Your task to perform on an android device: Go to calendar. Show me events next week Image 0: 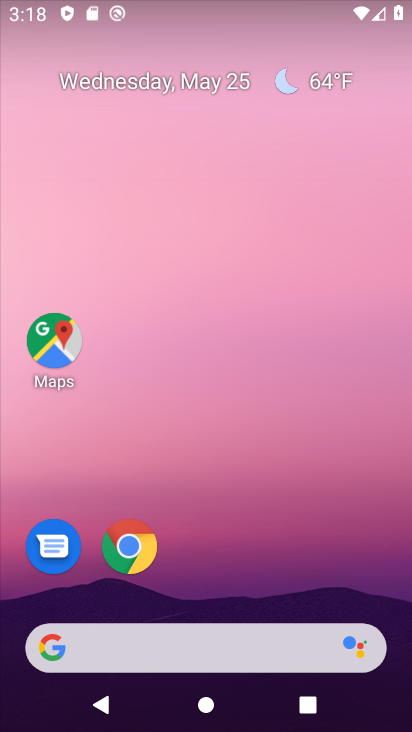
Step 0: drag from (224, 564) to (79, 26)
Your task to perform on an android device: Go to calendar. Show me events next week Image 1: 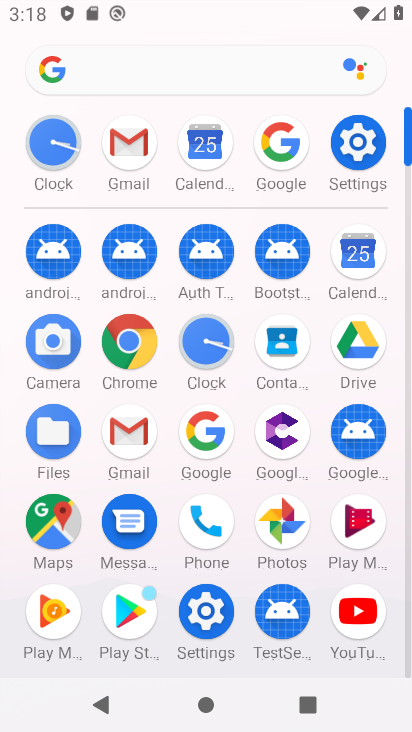
Step 1: click (358, 256)
Your task to perform on an android device: Go to calendar. Show me events next week Image 2: 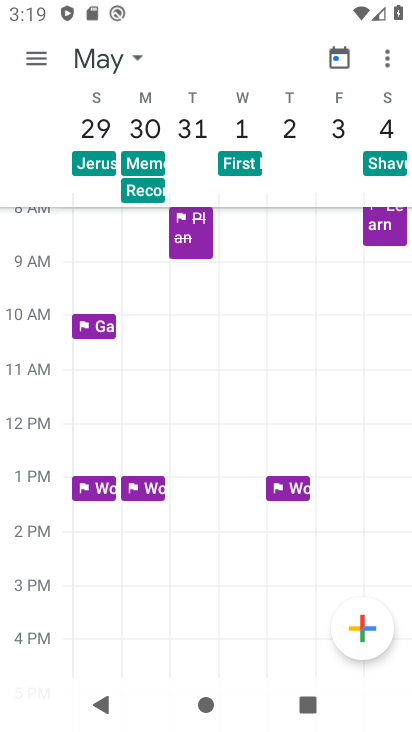
Step 2: drag from (88, 119) to (382, 111)
Your task to perform on an android device: Go to calendar. Show me events next week Image 3: 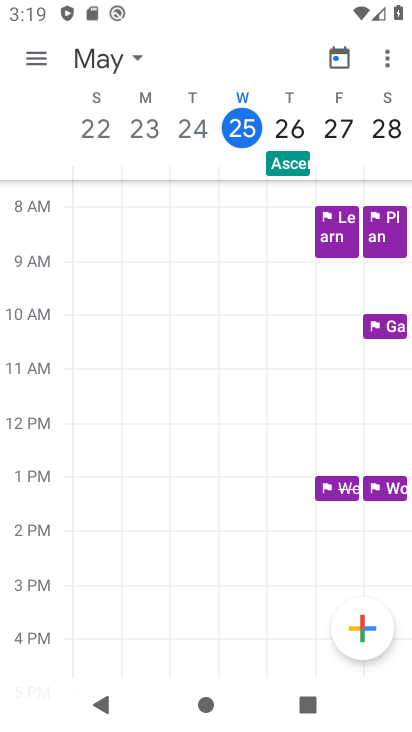
Step 3: click (47, 67)
Your task to perform on an android device: Go to calendar. Show me events next week Image 4: 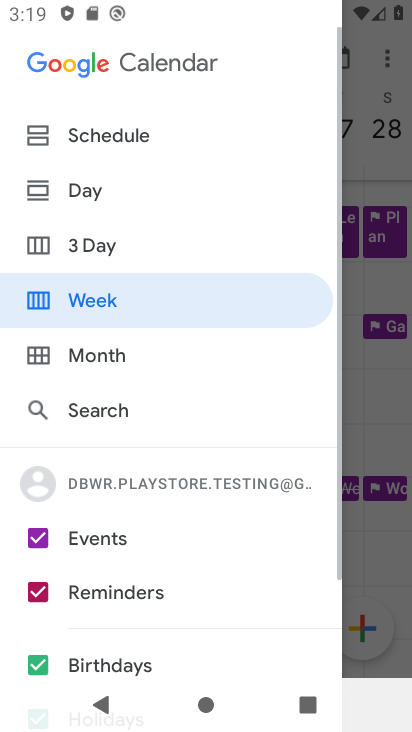
Step 4: click (77, 133)
Your task to perform on an android device: Go to calendar. Show me events next week Image 5: 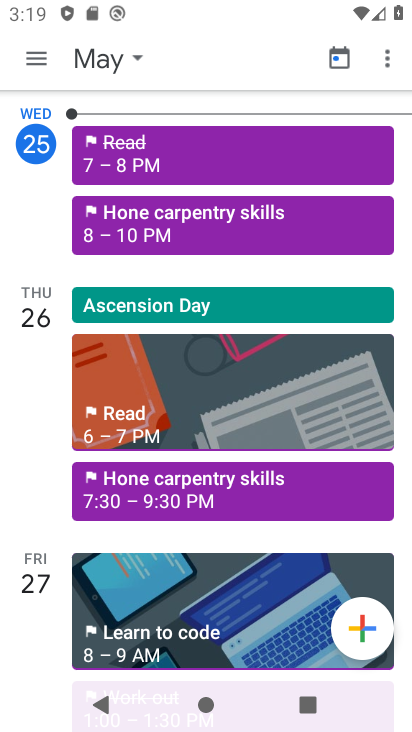
Step 5: task complete